Your task to perform on an android device: Go to CNN.com Image 0: 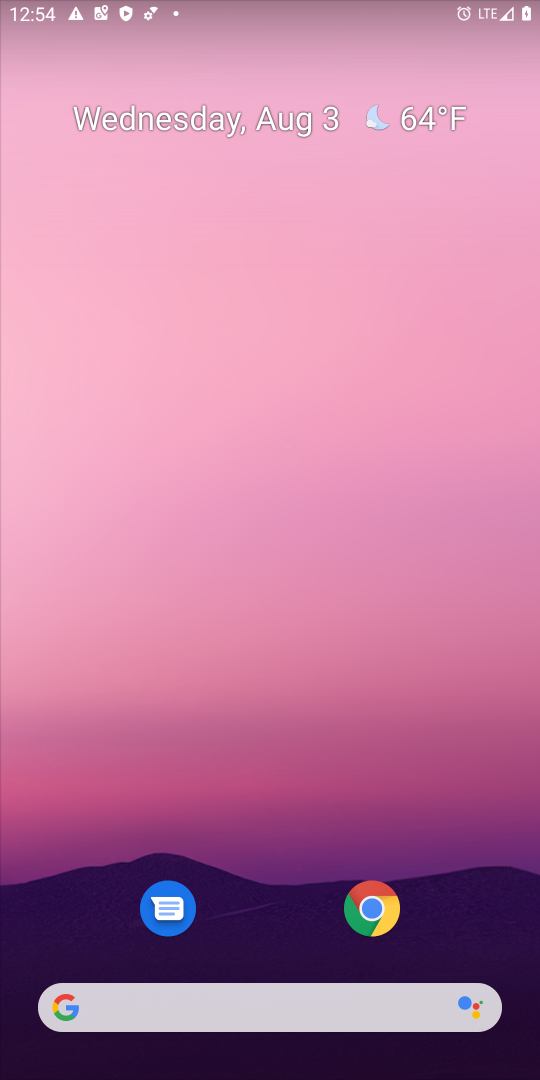
Step 0: drag from (224, 871) to (338, 0)
Your task to perform on an android device: Go to CNN.com Image 1: 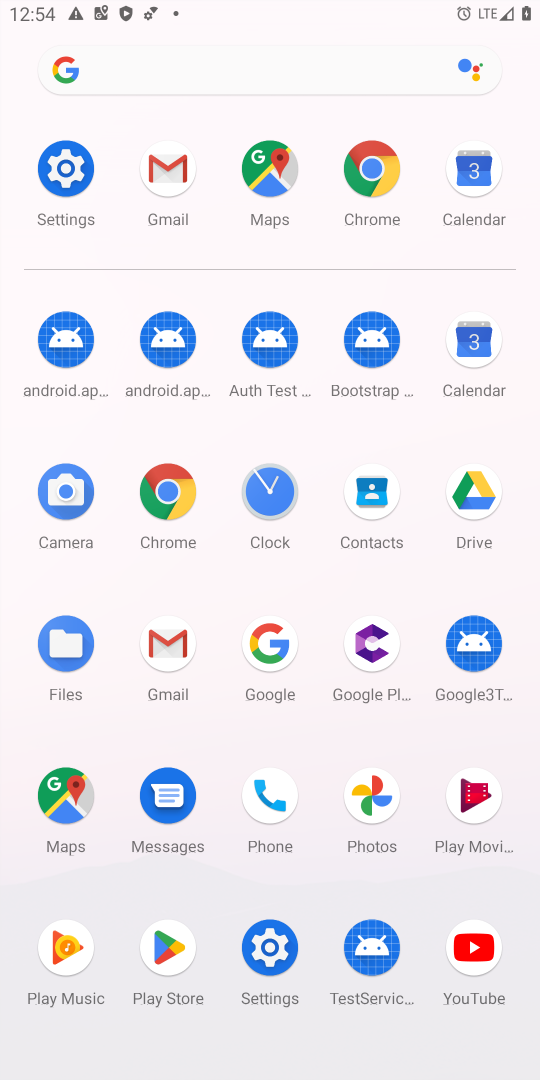
Step 1: click (170, 518)
Your task to perform on an android device: Go to CNN.com Image 2: 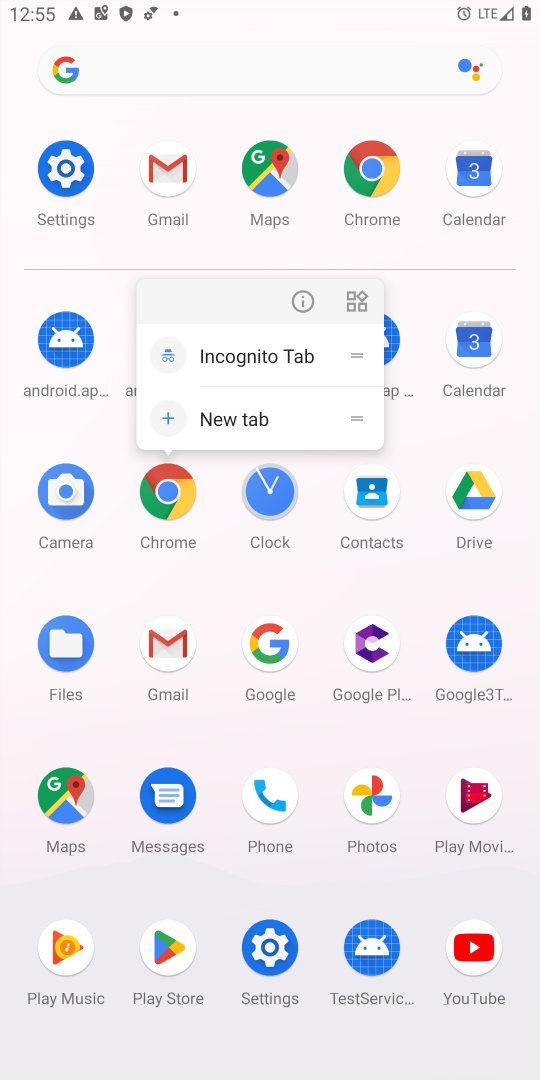
Step 2: click (160, 500)
Your task to perform on an android device: Go to CNN.com Image 3: 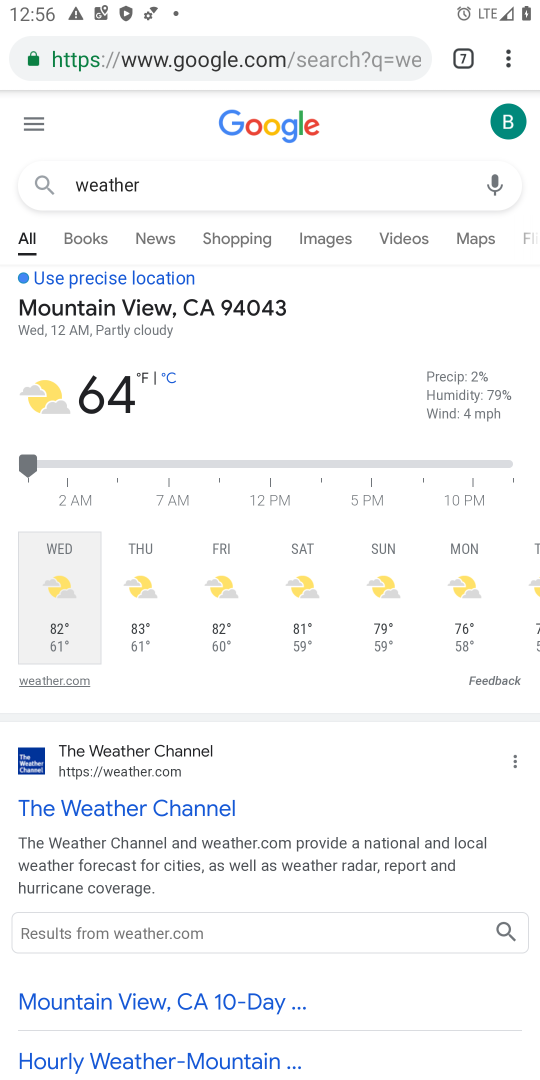
Step 3: click (467, 50)
Your task to perform on an android device: Go to CNN.com Image 4: 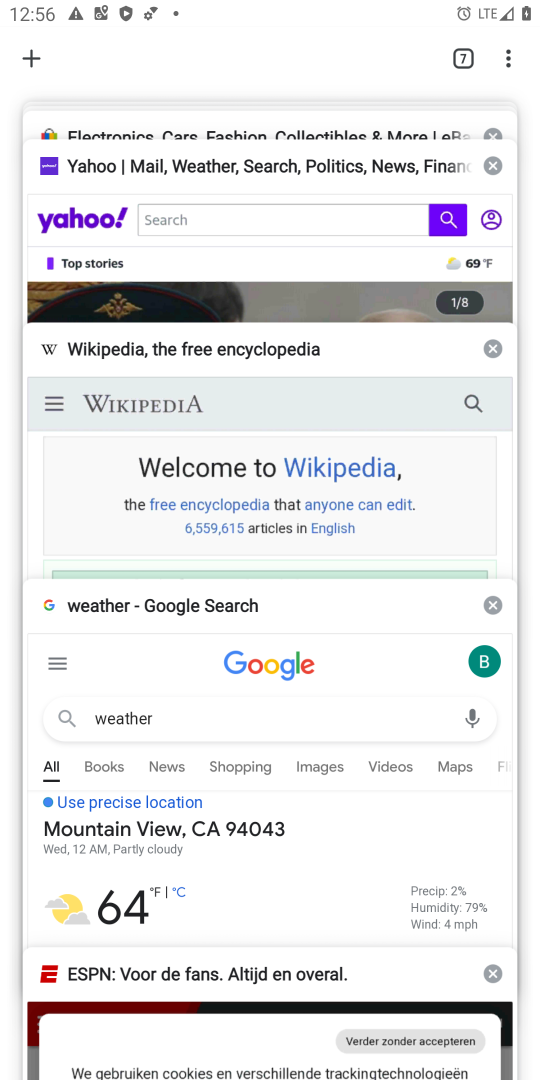
Step 4: click (39, 58)
Your task to perform on an android device: Go to CNN.com Image 5: 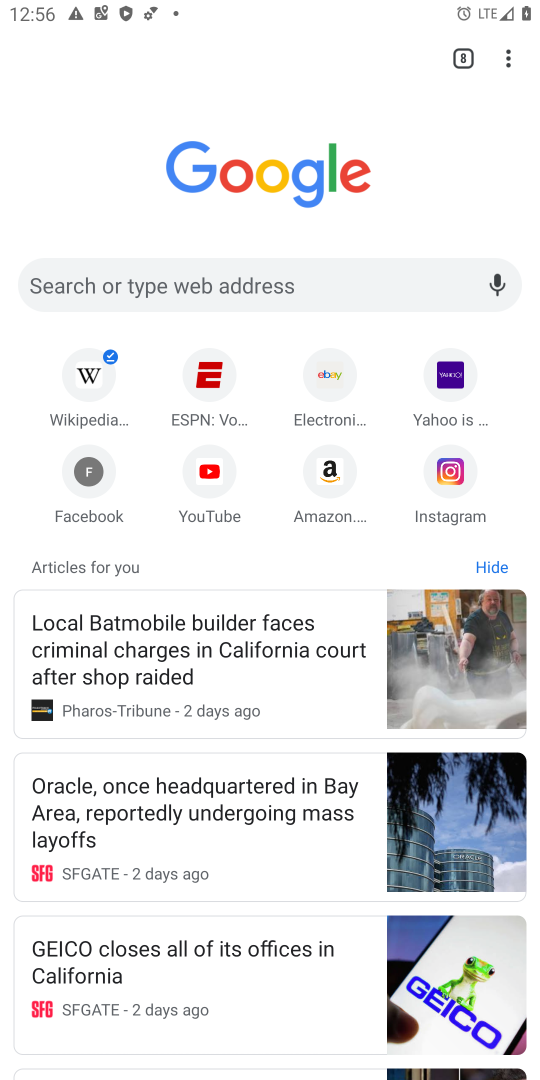
Step 5: click (195, 289)
Your task to perform on an android device: Go to CNN.com Image 6: 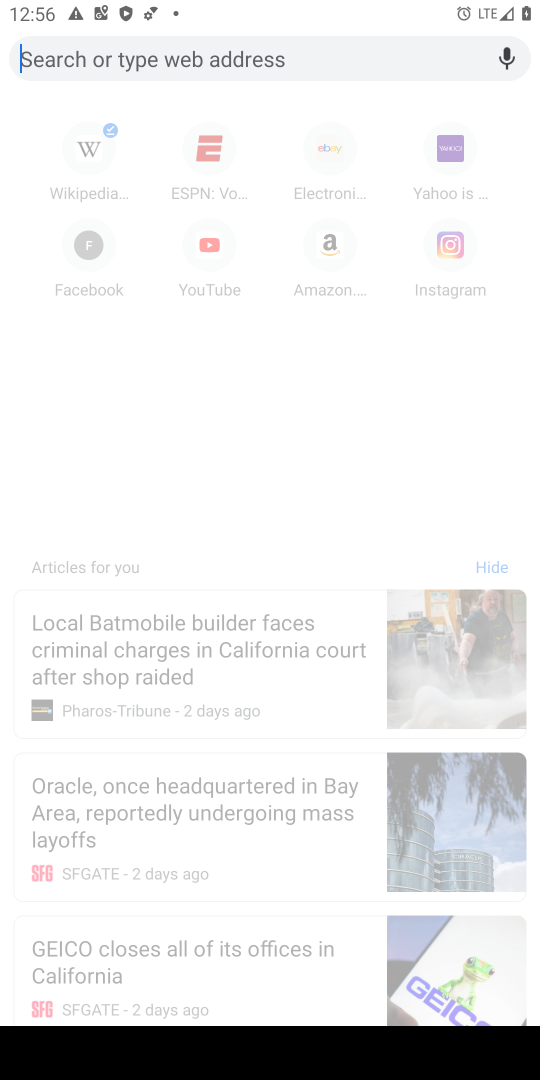
Step 6: type " CNN.com"
Your task to perform on an android device: Go to CNN.com Image 7: 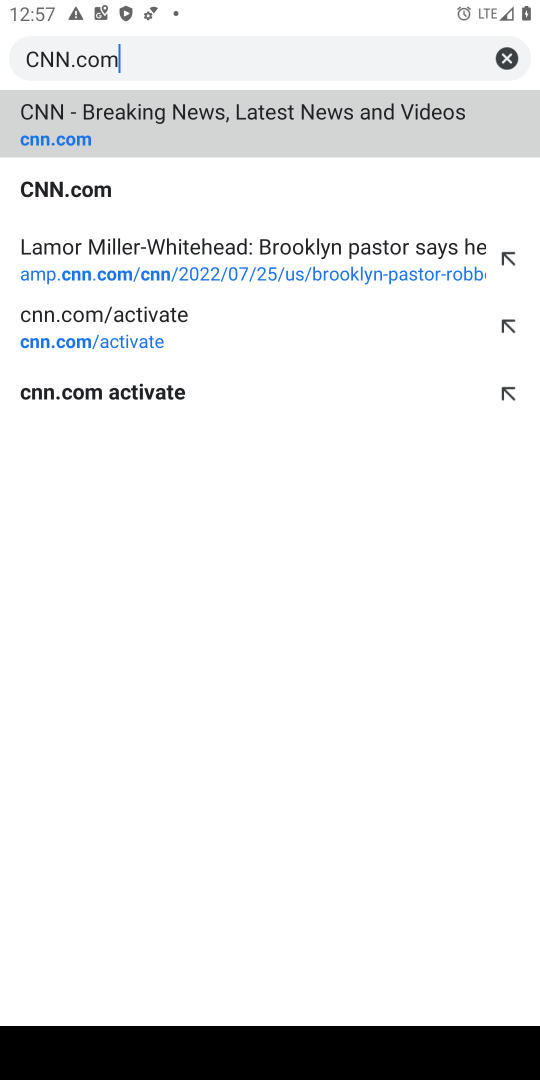
Step 7: type ""
Your task to perform on an android device: Go to CNN.com Image 8: 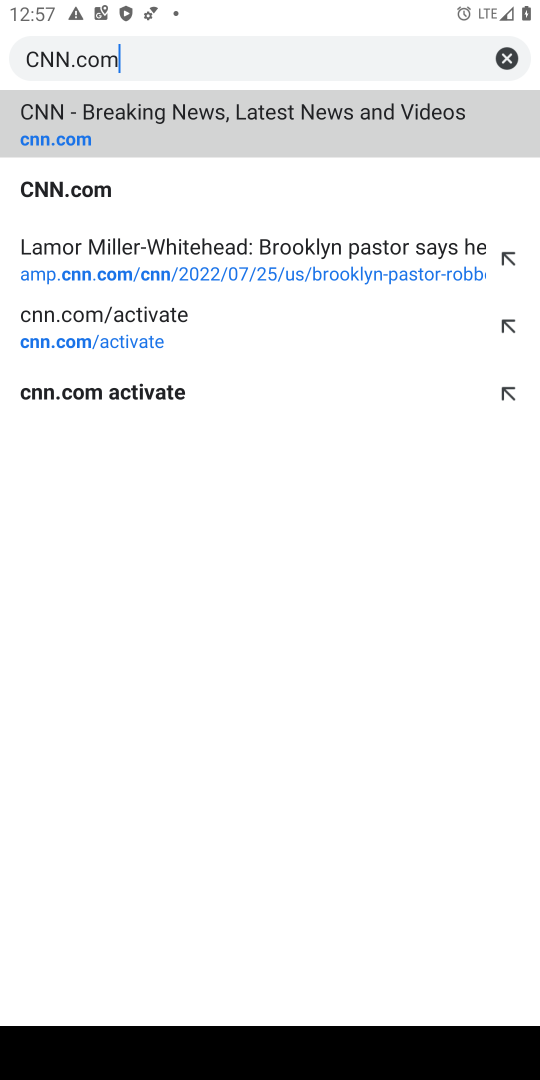
Step 8: click (194, 135)
Your task to perform on an android device: Go to CNN.com Image 9: 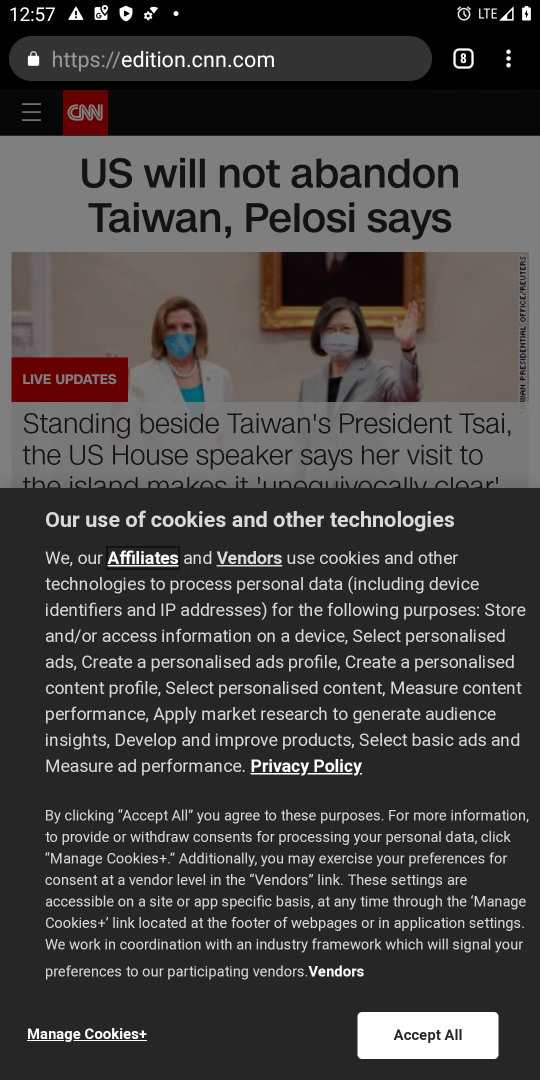
Step 9: task complete